Your task to perform on an android device: turn off location history Image 0: 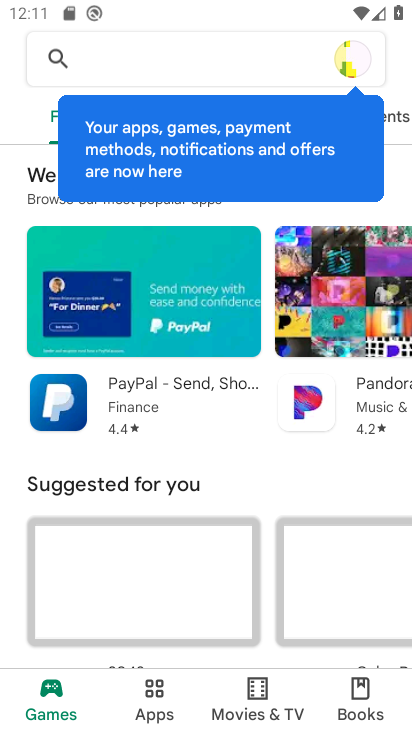
Step 0: press home button
Your task to perform on an android device: turn off location history Image 1: 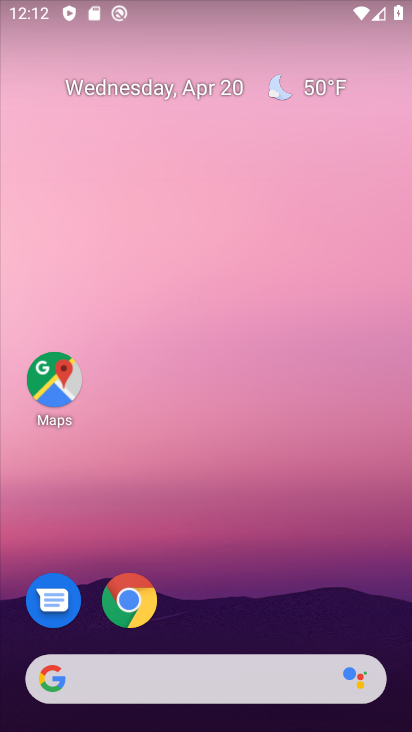
Step 1: drag from (224, 577) to (256, 66)
Your task to perform on an android device: turn off location history Image 2: 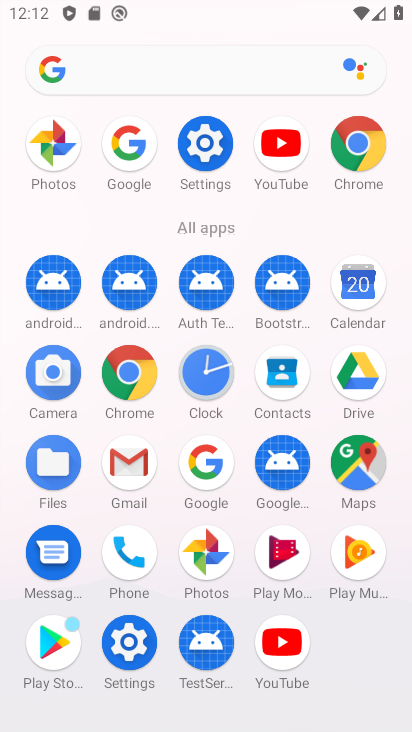
Step 2: click (126, 655)
Your task to perform on an android device: turn off location history Image 3: 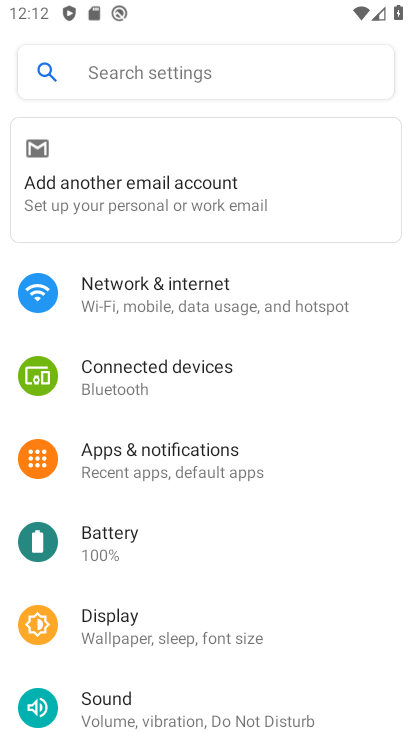
Step 3: drag from (126, 655) to (222, 143)
Your task to perform on an android device: turn off location history Image 4: 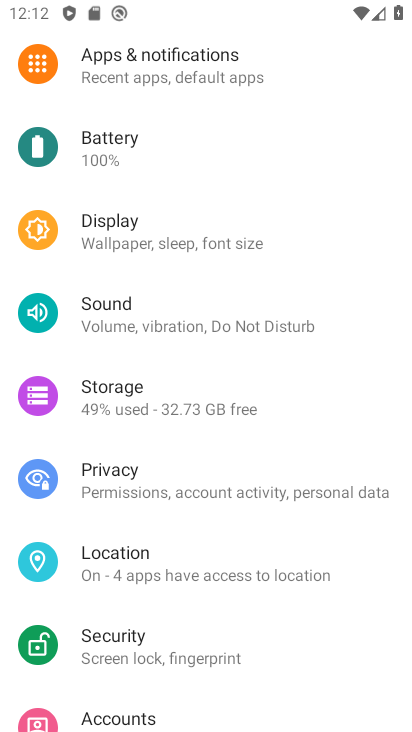
Step 4: click (121, 551)
Your task to perform on an android device: turn off location history Image 5: 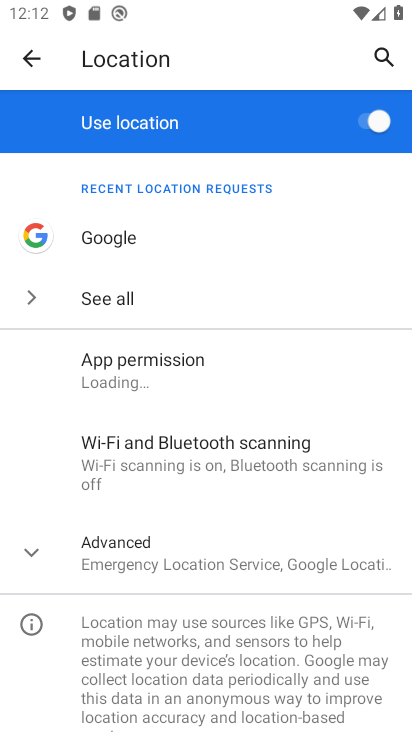
Step 5: click (166, 563)
Your task to perform on an android device: turn off location history Image 6: 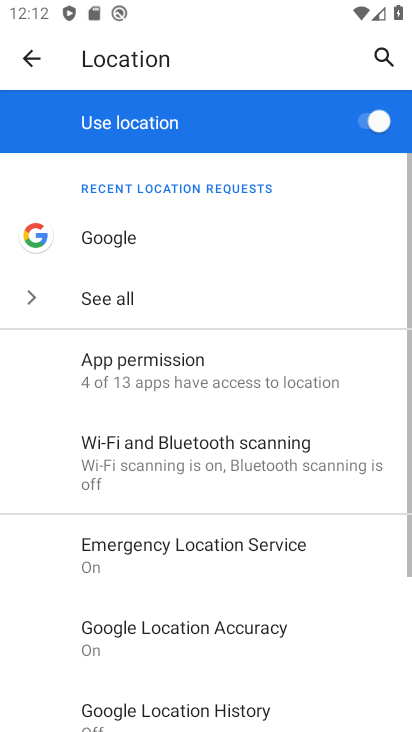
Step 6: drag from (174, 624) to (234, 265)
Your task to perform on an android device: turn off location history Image 7: 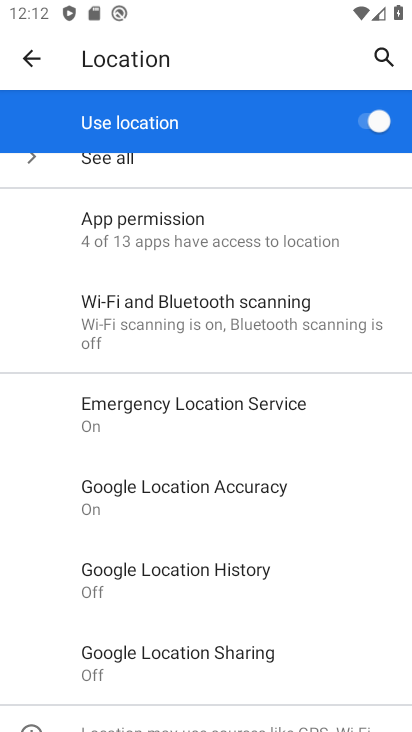
Step 7: click (202, 581)
Your task to perform on an android device: turn off location history Image 8: 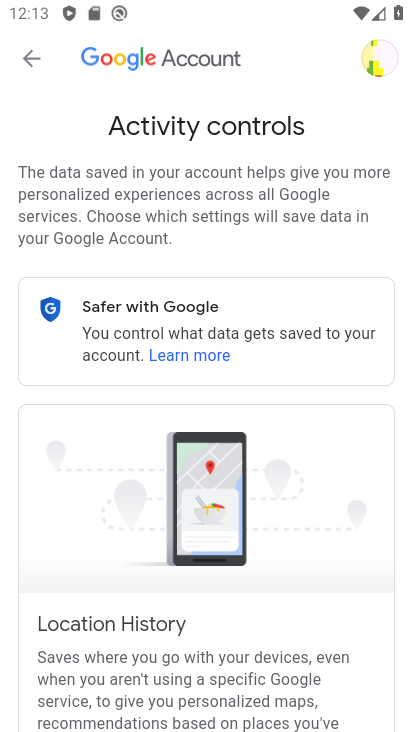
Step 8: drag from (201, 650) to (295, 79)
Your task to perform on an android device: turn off location history Image 9: 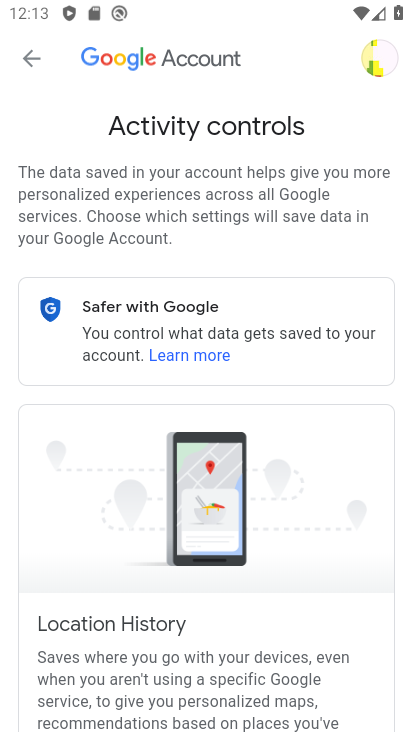
Step 9: drag from (216, 614) to (278, 147)
Your task to perform on an android device: turn off location history Image 10: 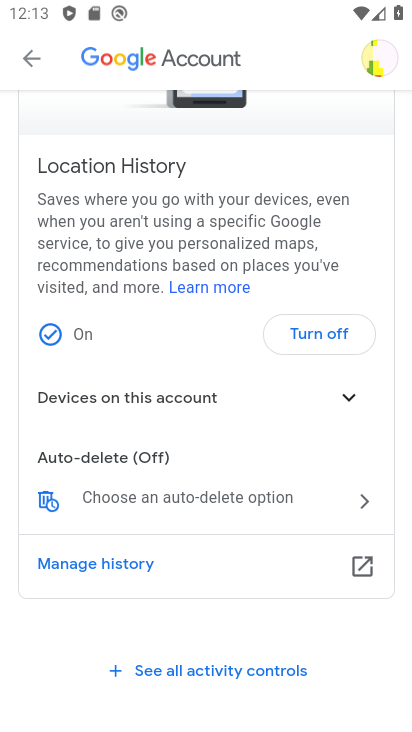
Step 10: click (329, 328)
Your task to perform on an android device: turn off location history Image 11: 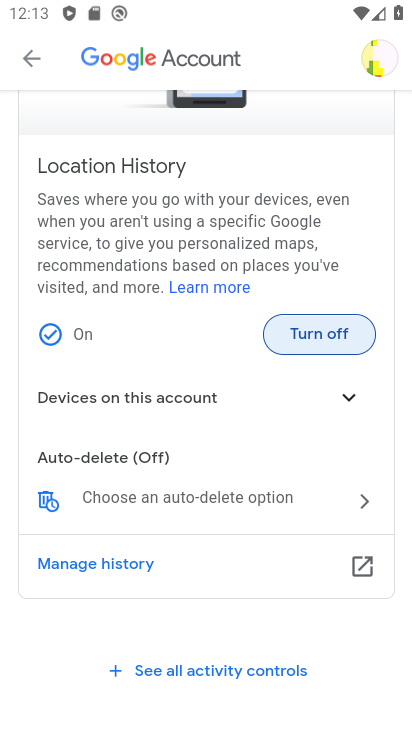
Step 11: click (307, 335)
Your task to perform on an android device: turn off location history Image 12: 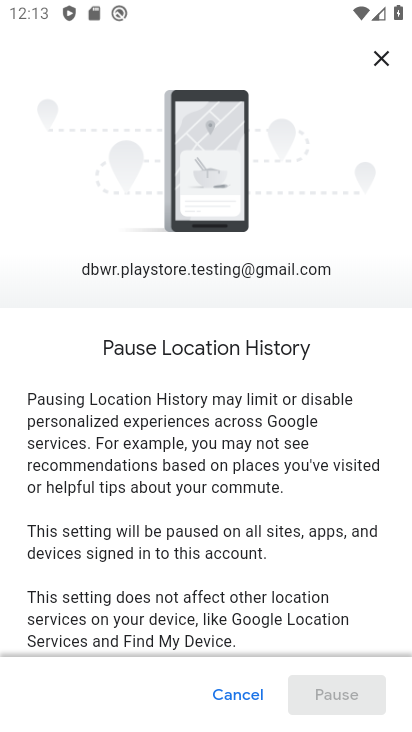
Step 12: drag from (263, 486) to (303, 115)
Your task to perform on an android device: turn off location history Image 13: 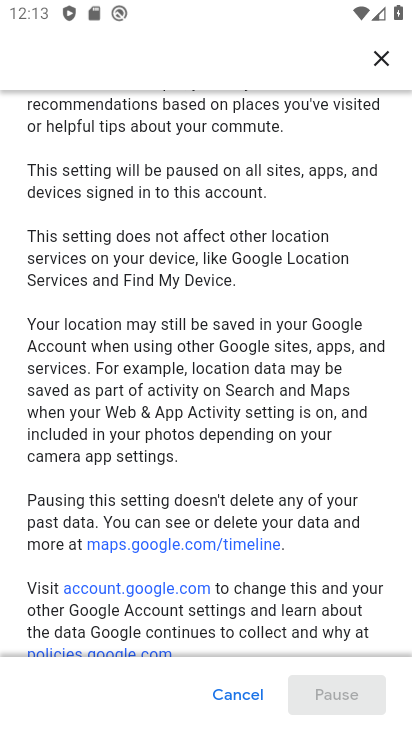
Step 13: drag from (225, 509) to (279, 112)
Your task to perform on an android device: turn off location history Image 14: 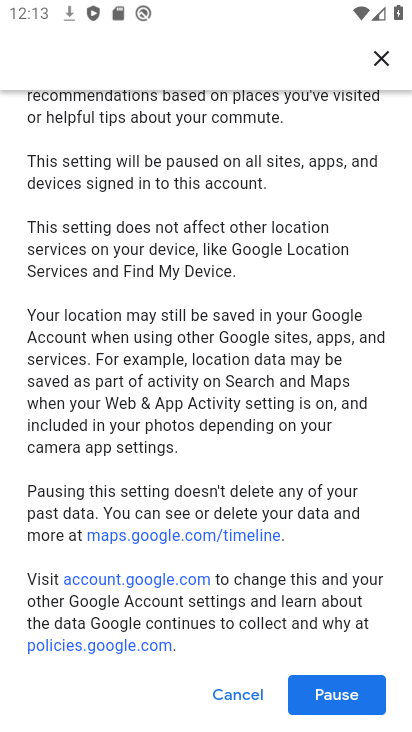
Step 14: drag from (229, 546) to (288, 171)
Your task to perform on an android device: turn off location history Image 15: 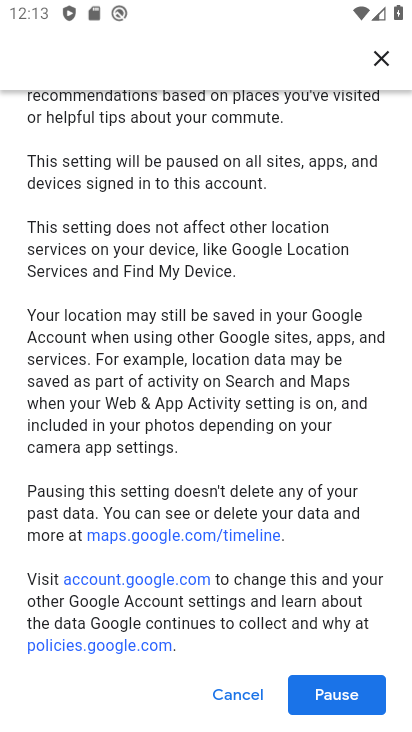
Step 15: click (352, 698)
Your task to perform on an android device: turn off location history Image 16: 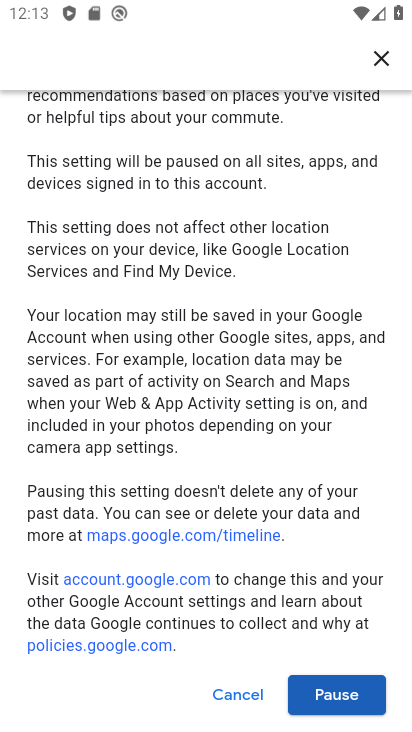
Step 16: click (343, 701)
Your task to perform on an android device: turn off location history Image 17: 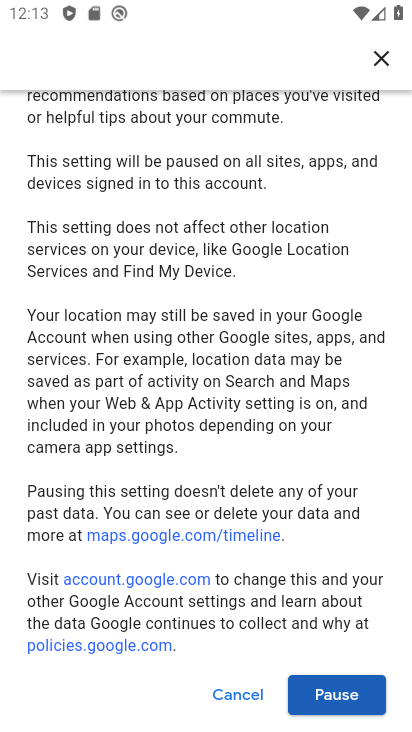
Step 17: click (332, 695)
Your task to perform on an android device: turn off location history Image 18: 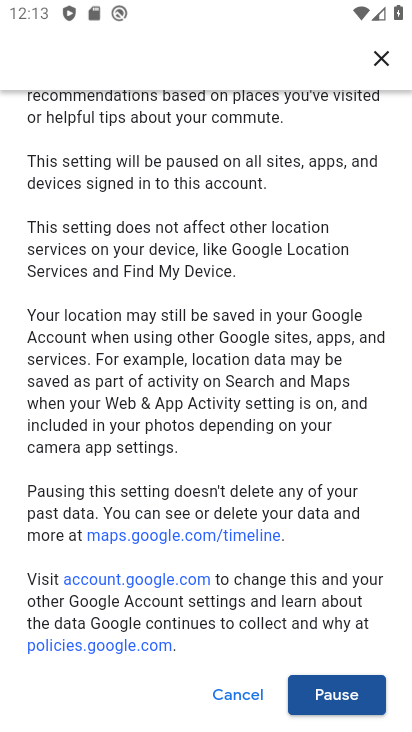
Step 18: drag from (173, 476) to (276, 111)
Your task to perform on an android device: turn off location history Image 19: 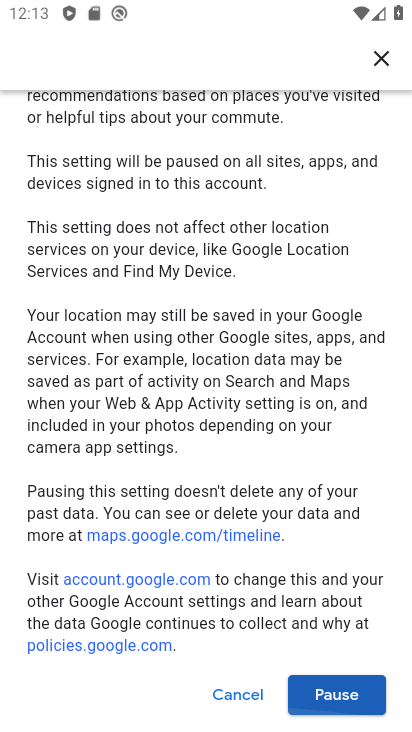
Step 19: click (329, 706)
Your task to perform on an android device: turn off location history Image 20: 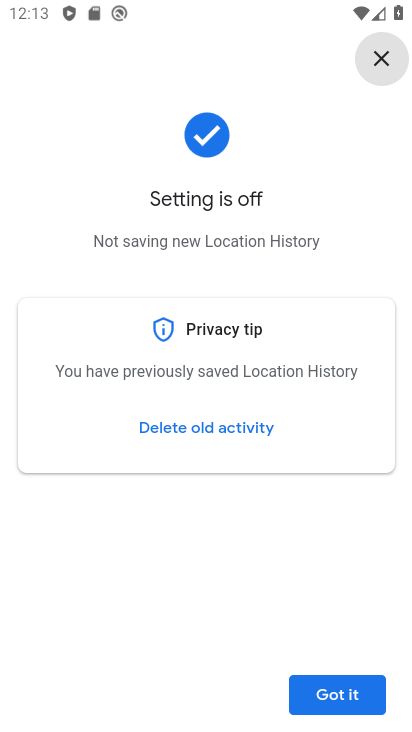
Step 20: task complete